Your task to perform on an android device: toggle airplane mode Image 0: 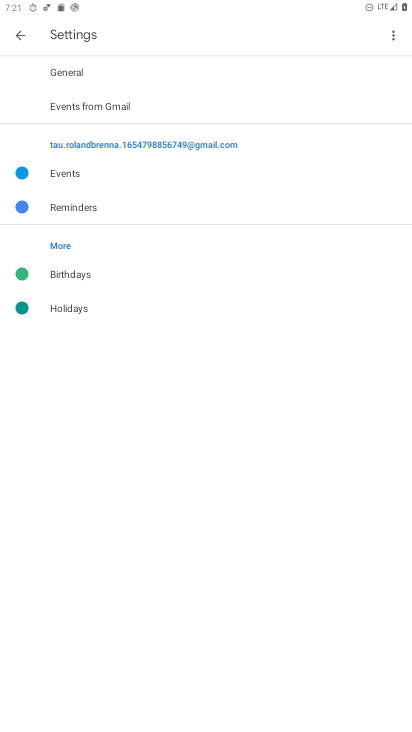
Step 0: press home button
Your task to perform on an android device: toggle airplane mode Image 1: 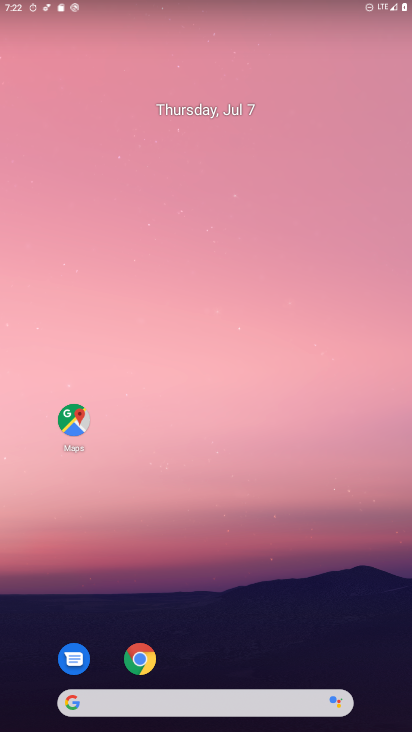
Step 1: drag from (252, 8) to (261, 549)
Your task to perform on an android device: toggle airplane mode Image 2: 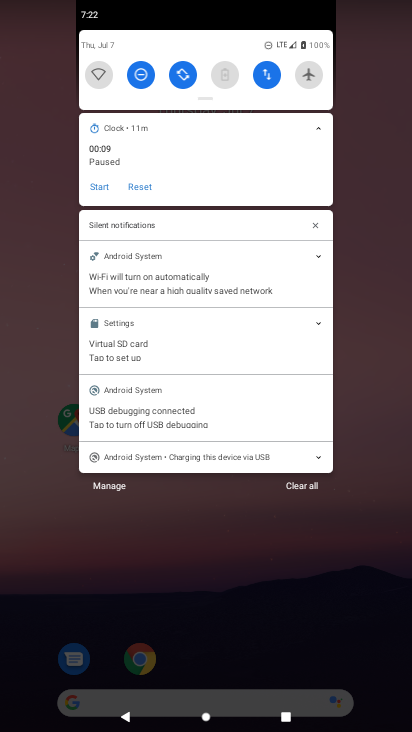
Step 2: click (308, 69)
Your task to perform on an android device: toggle airplane mode Image 3: 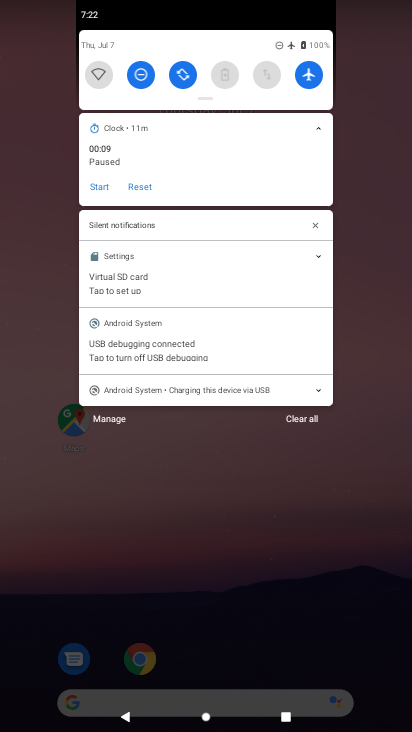
Step 3: task complete